Your task to perform on an android device: manage bookmarks in the chrome app Image 0: 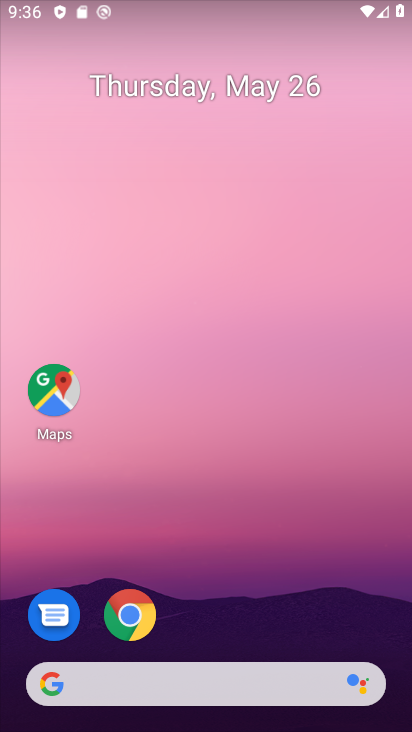
Step 0: drag from (313, 701) to (260, 103)
Your task to perform on an android device: manage bookmarks in the chrome app Image 1: 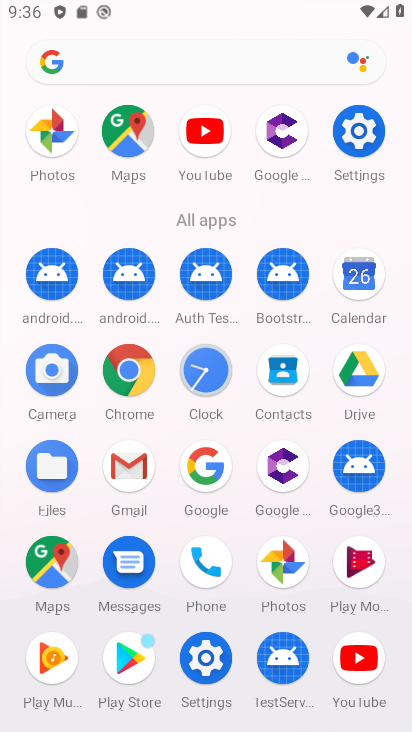
Step 1: click (134, 372)
Your task to perform on an android device: manage bookmarks in the chrome app Image 2: 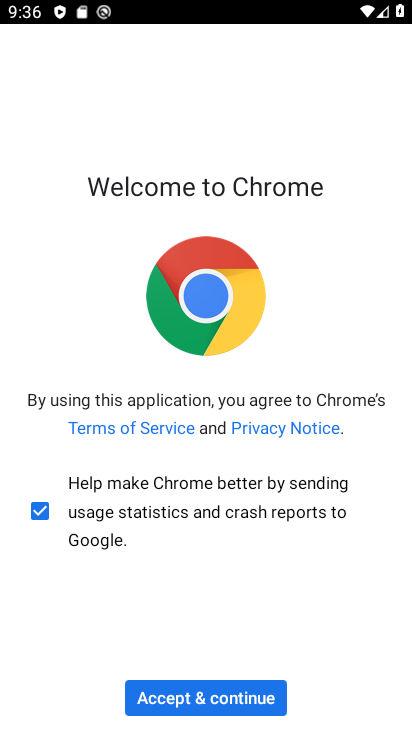
Step 2: click (235, 706)
Your task to perform on an android device: manage bookmarks in the chrome app Image 3: 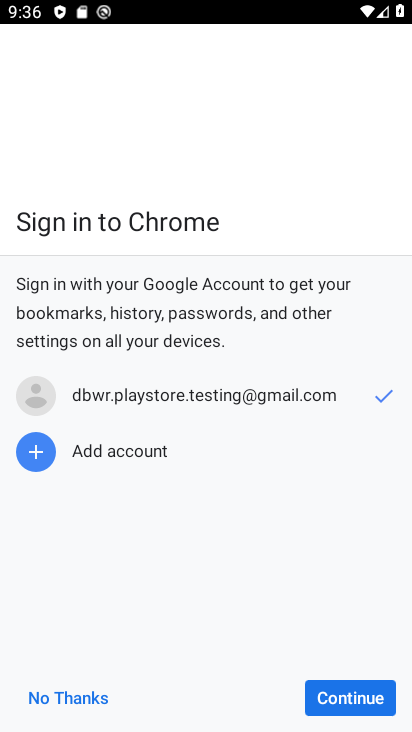
Step 3: click (382, 708)
Your task to perform on an android device: manage bookmarks in the chrome app Image 4: 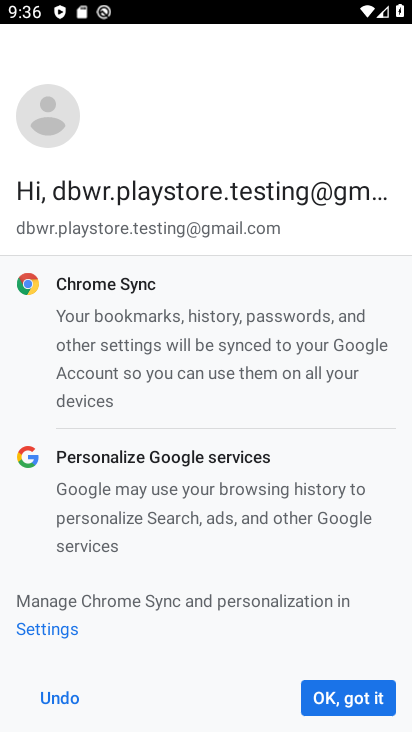
Step 4: click (359, 684)
Your task to perform on an android device: manage bookmarks in the chrome app Image 5: 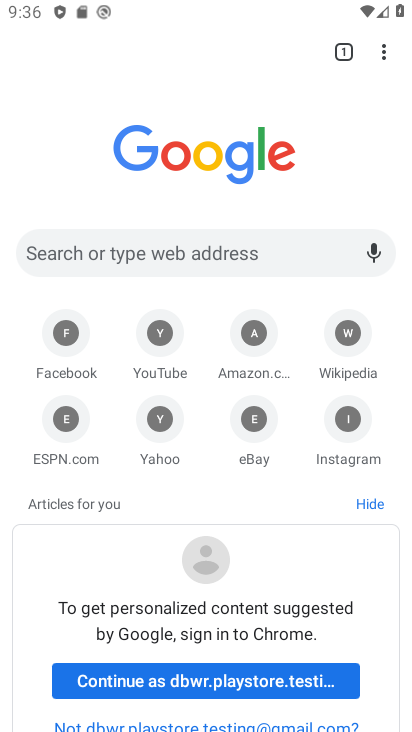
Step 5: click (374, 65)
Your task to perform on an android device: manage bookmarks in the chrome app Image 6: 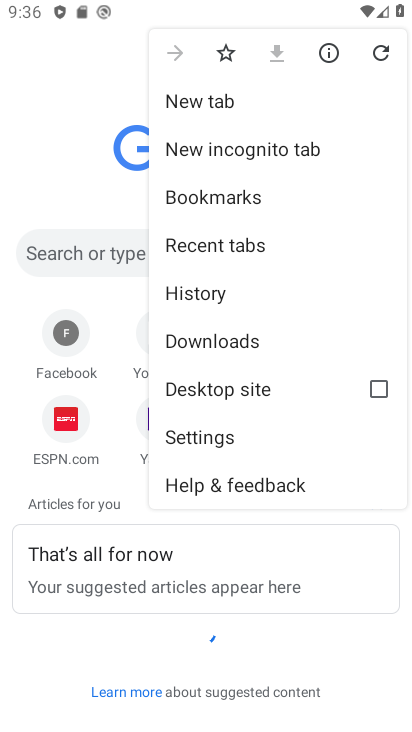
Step 6: click (222, 211)
Your task to perform on an android device: manage bookmarks in the chrome app Image 7: 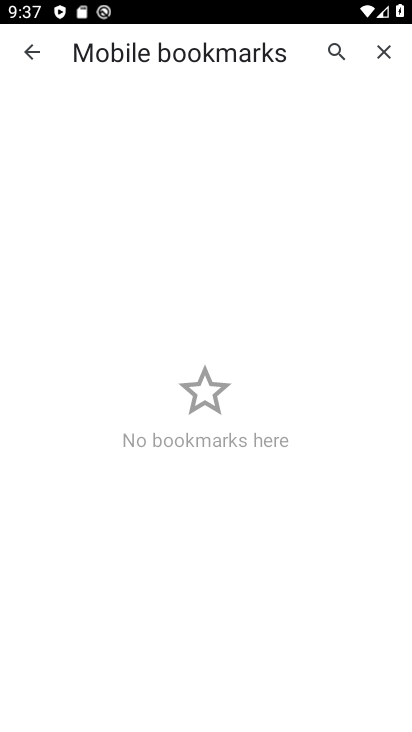
Step 7: task complete